Your task to perform on an android device: Do I have any events today? Image 0: 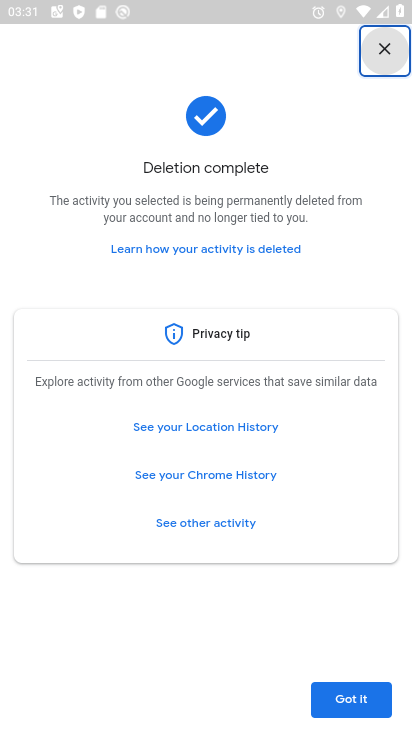
Step 0: press home button
Your task to perform on an android device: Do I have any events today? Image 1: 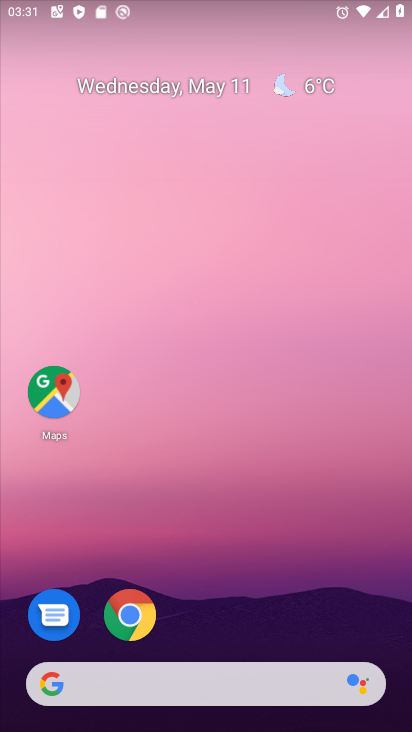
Step 1: drag from (207, 608) to (266, 74)
Your task to perform on an android device: Do I have any events today? Image 2: 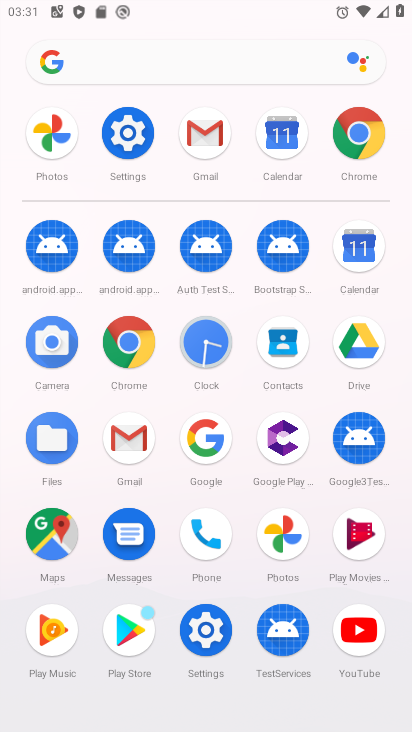
Step 2: click (350, 242)
Your task to perform on an android device: Do I have any events today? Image 3: 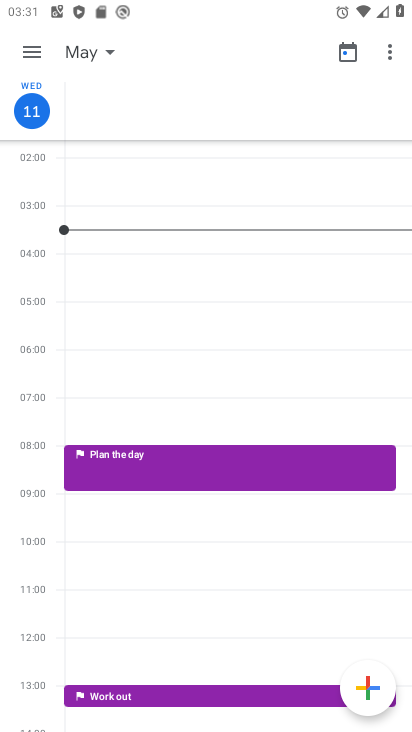
Step 3: task complete